Your task to perform on an android device: Open the stopwatch Image 0: 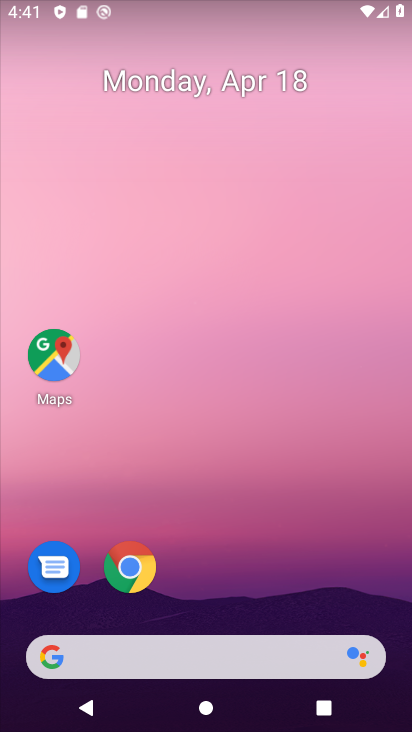
Step 0: drag from (256, 642) to (237, 162)
Your task to perform on an android device: Open the stopwatch Image 1: 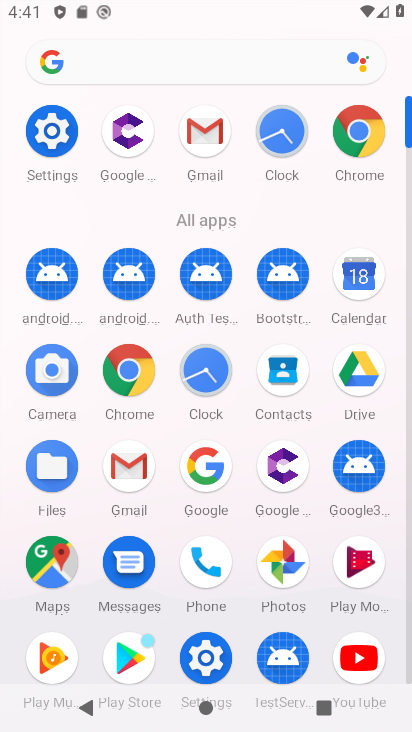
Step 1: click (277, 137)
Your task to perform on an android device: Open the stopwatch Image 2: 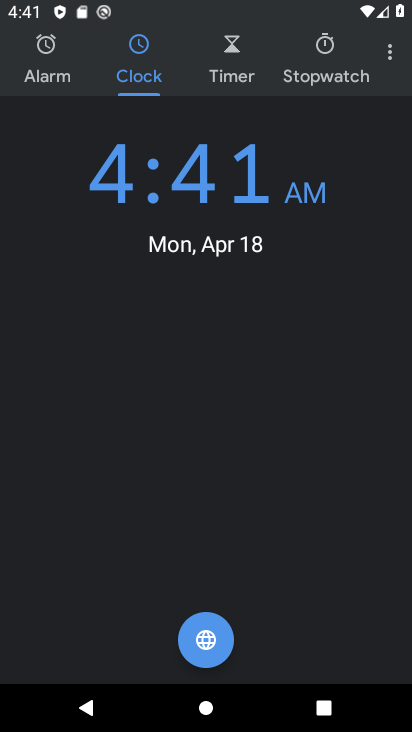
Step 2: click (323, 55)
Your task to perform on an android device: Open the stopwatch Image 3: 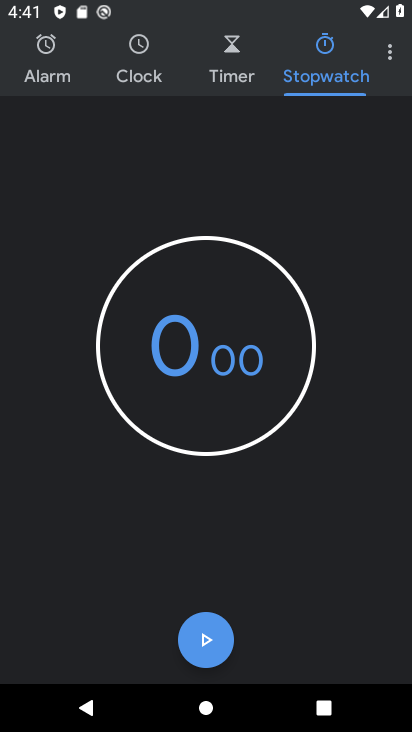
Step 3: task complete